Your task to perform on an android device: find photos in the google photos app Image 0: 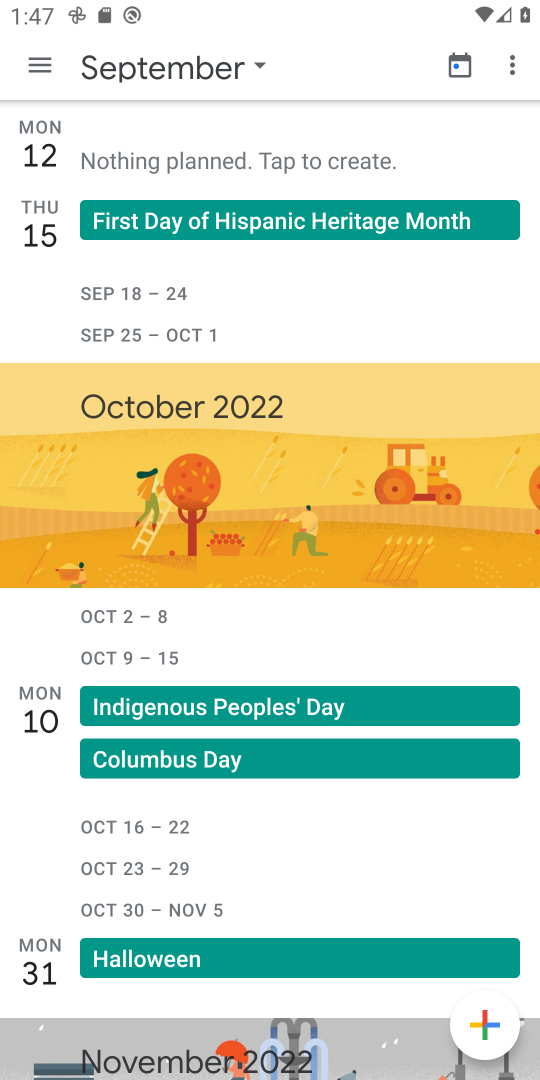
Step 0: press home button
Your task to perform on an android device: find photos in the google photos app Image 1: 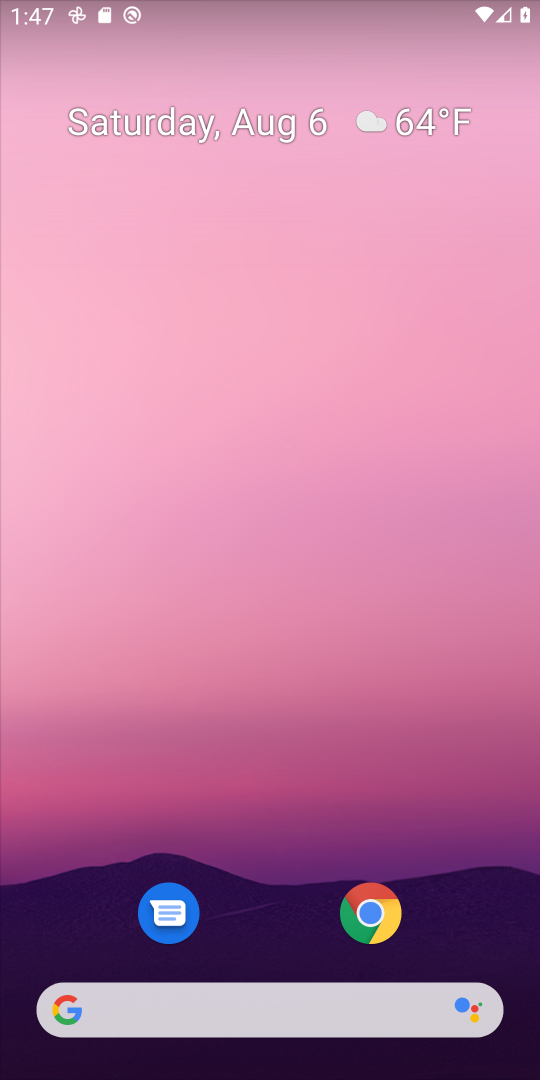
Step 1: drag from (260, 951) to (305, 240)
Your task to perform on an android device: find photos in the google photos app Image 2: 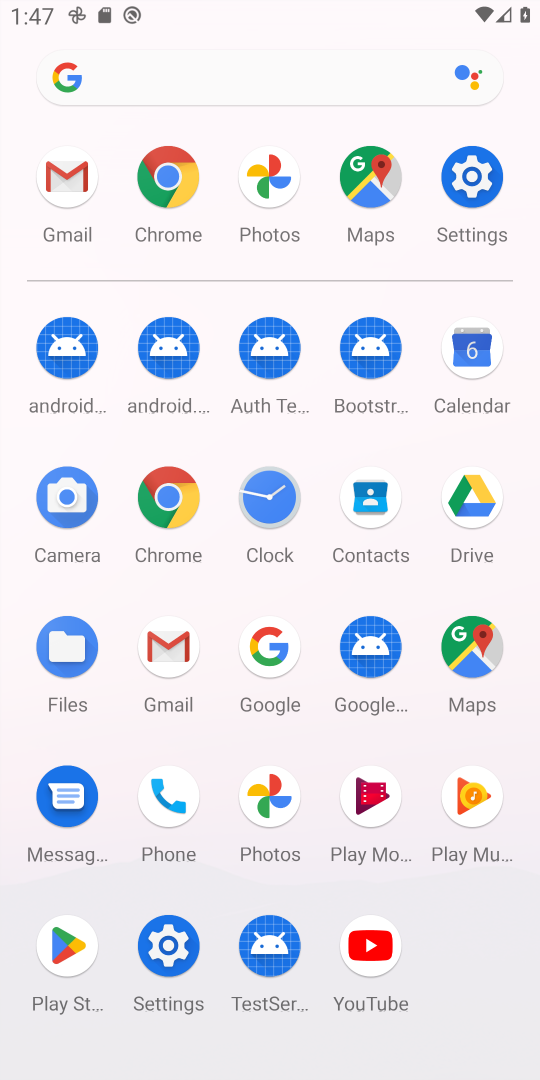
Step 2: click (246, 795)
Your task to perform on an android device: find photos in the google photos app Image 3: 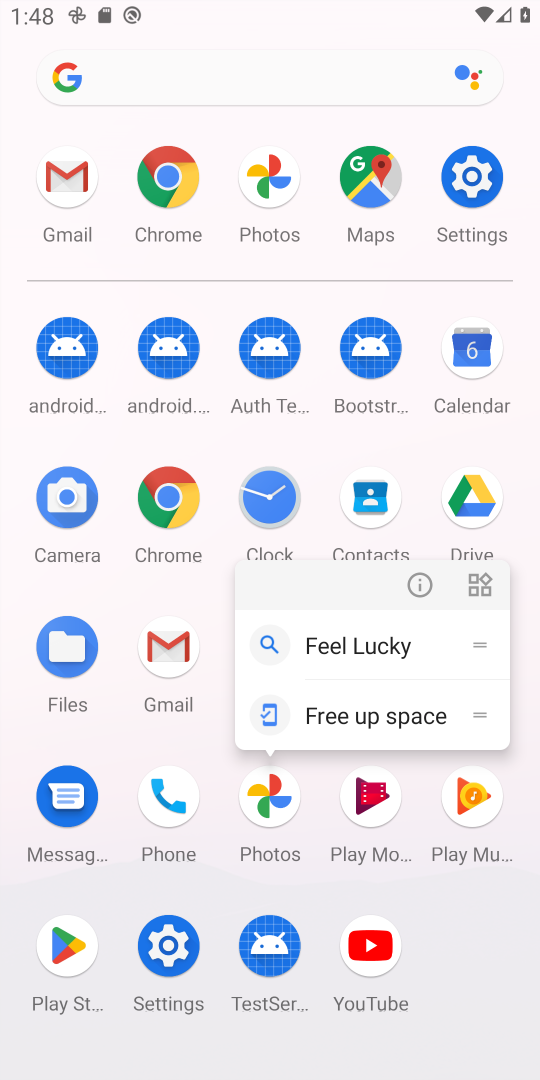
Step 3: click (268, 796)
Your task to perform on an android device: find photos in the google photos app Image 4: 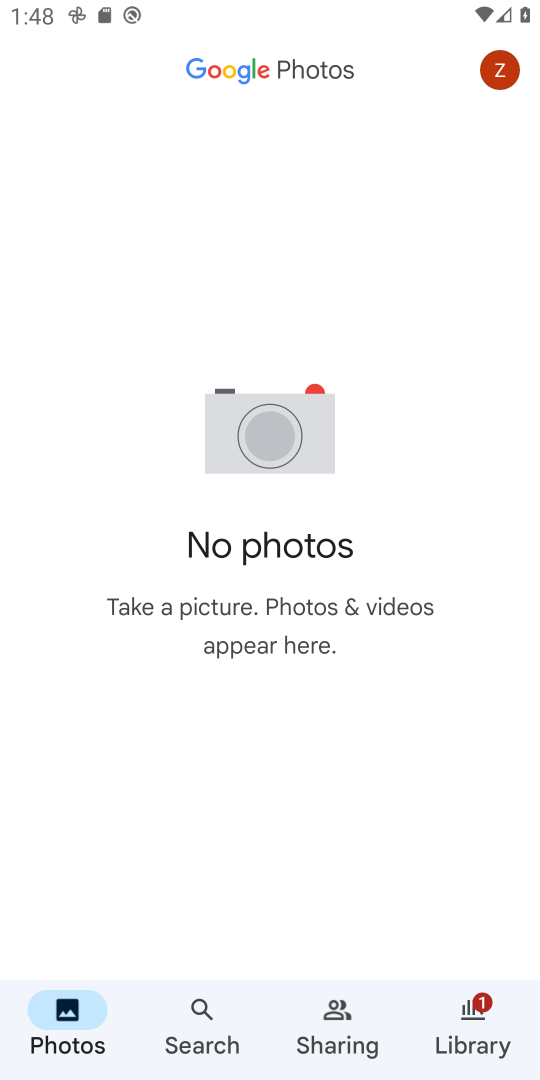
Step 4: task complete